Your task to perform on an android device: Go to Amazon Image 0: 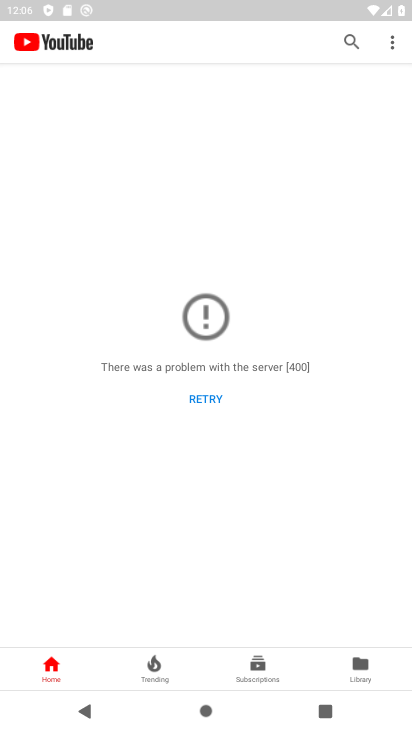
Step 0: press home button
Your task to perform on an android device: Go to Amazon Image 1: 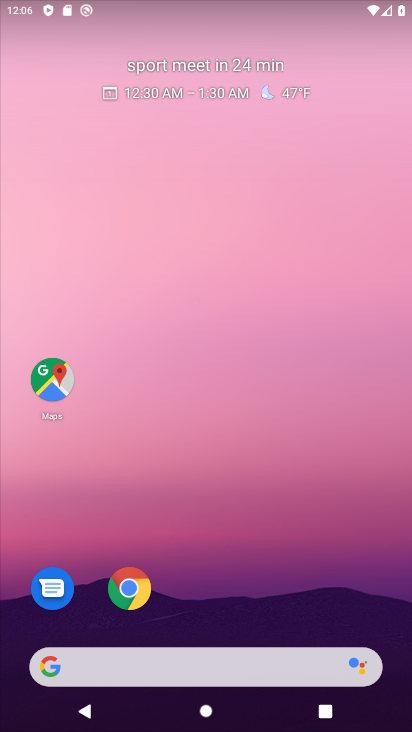
Step 1: click (139, 587)
Your task to perform on an android device: Go to Amazon Image 2: 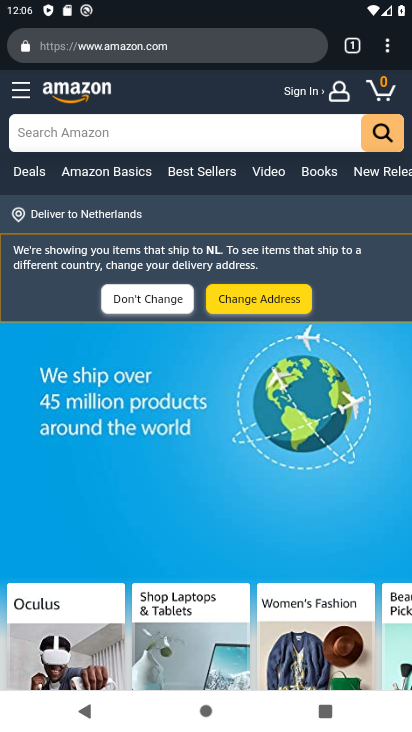
Step 2: task complete